Your task to perform on an android device: Search for "amazon basics triple a" on walmart, select the first entry, and add it to the cart. Image 0: 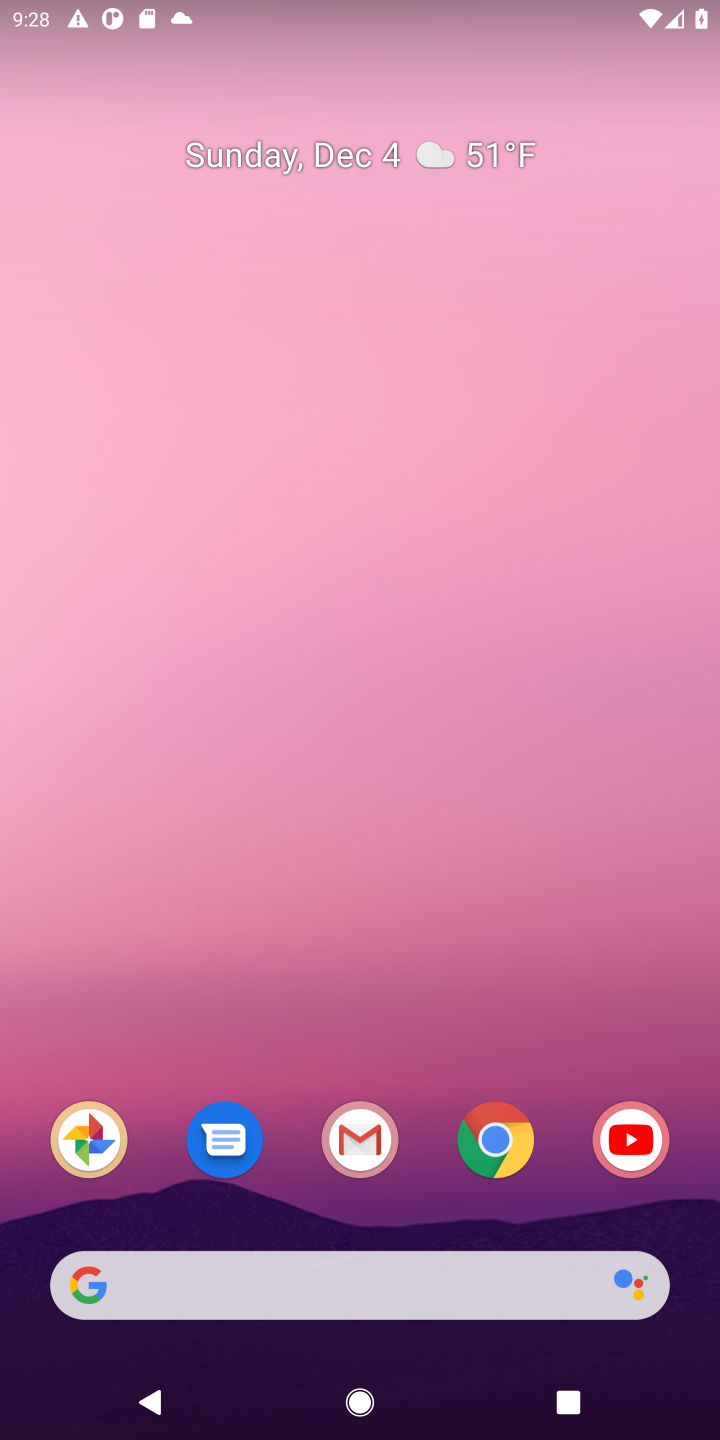
Step 0: click (501, 1132)
Your task to perform on an android device: Search for "amazon basics triple a" on walmart, select the first entry, and add it to the cart. Image 1: 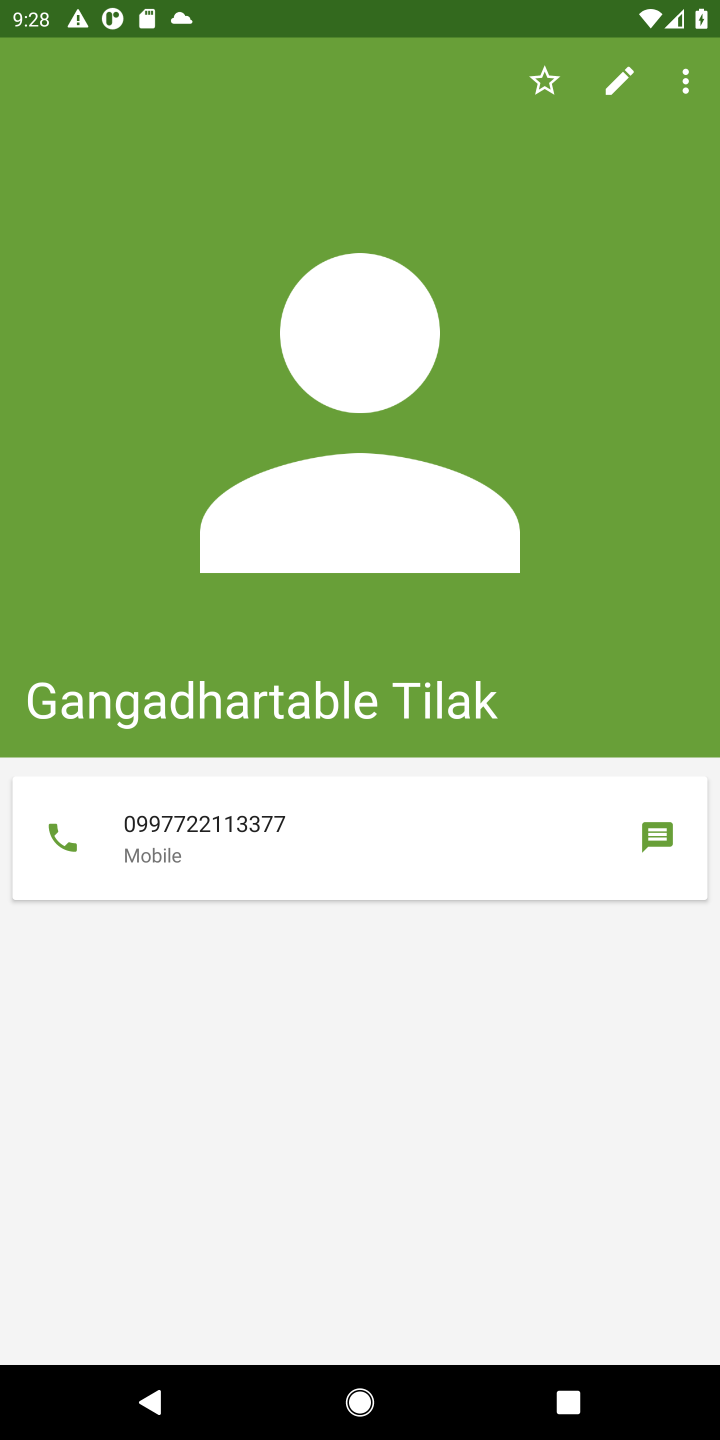
Step 1: press home button
Your task to perform on an android device: Search for "amazon basics triple a" on walmart, select the first entry, and add it to the cart. Image 2: 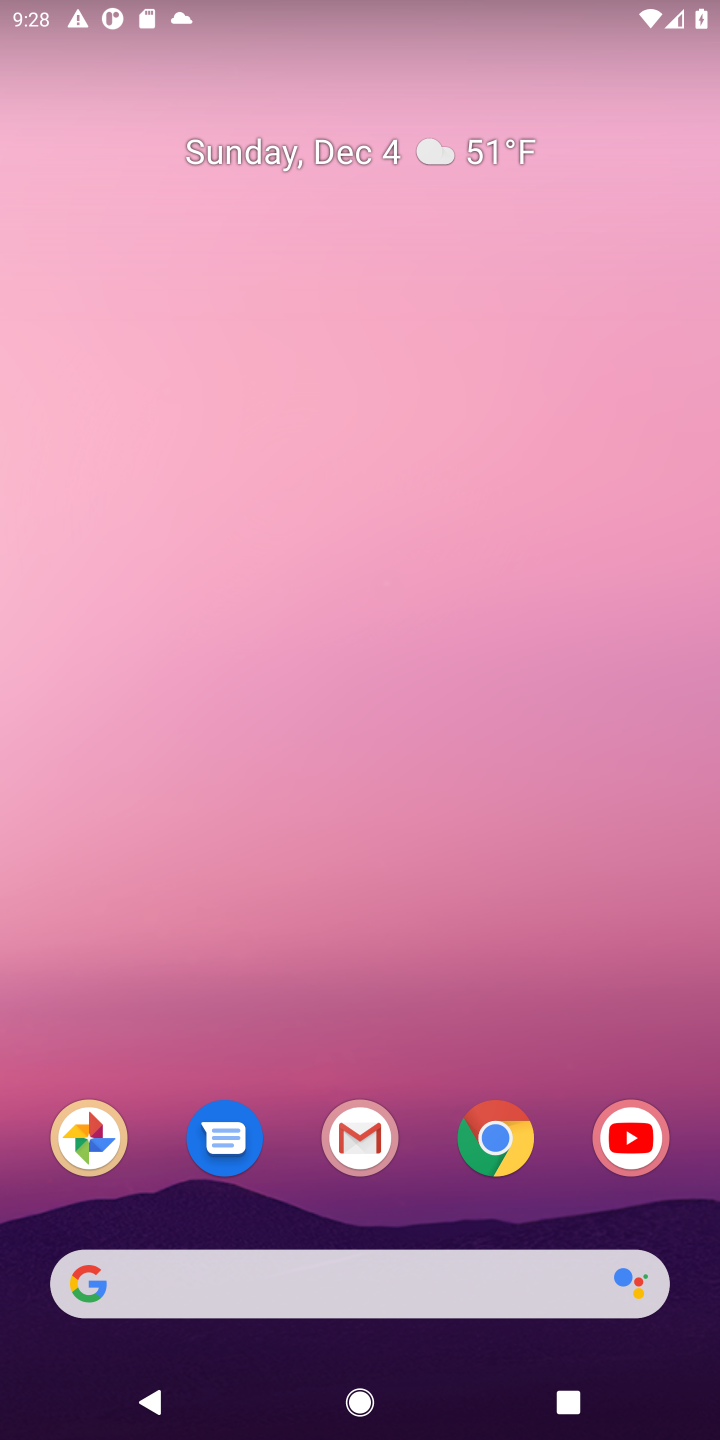
Step 2: click (503, 1140)
Your task to perform on an android device: Search for "amazon basics triple a" on walmart, select the first entry, and add it to the cart. Image 3: 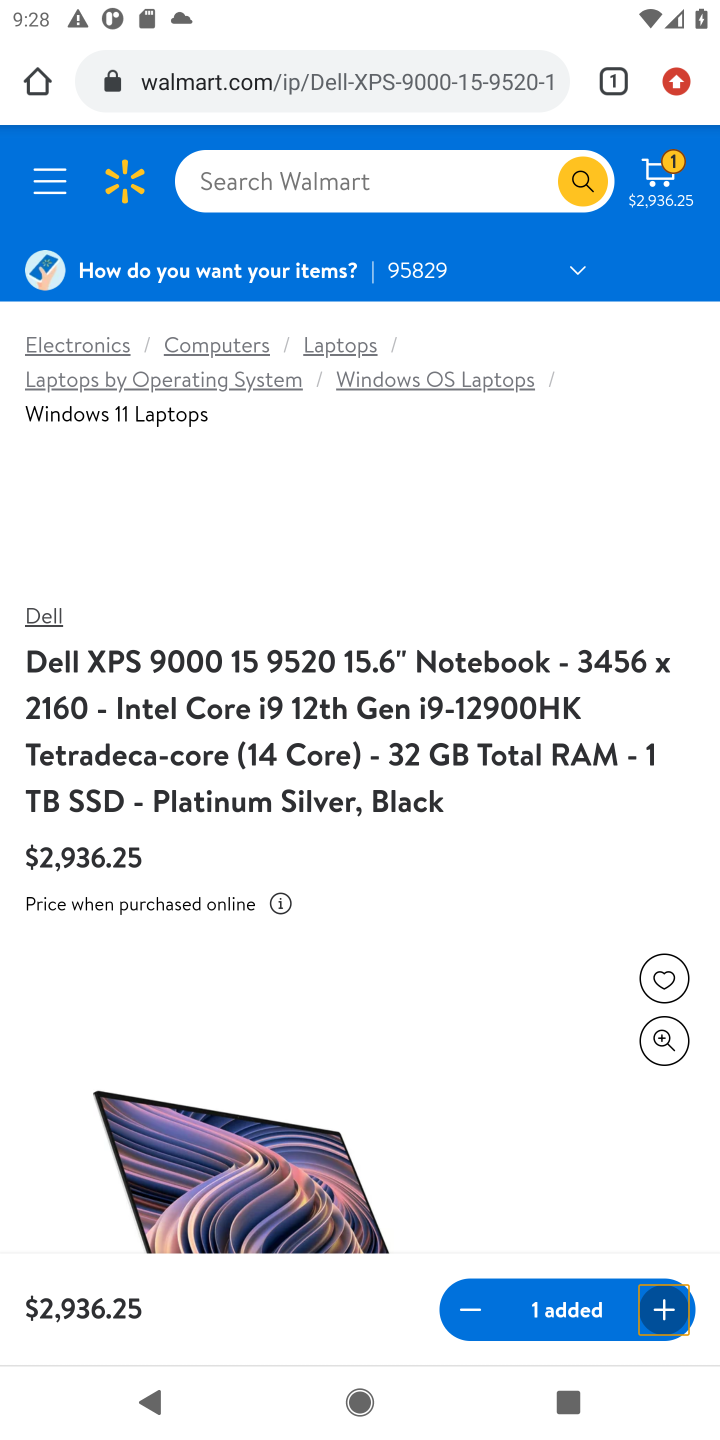
Step 3: click (341, 186)
Your task to perform on an android device: Search for "amazon basics triple a" on walmart, select the first entry, and add it to the cart. Image 4: 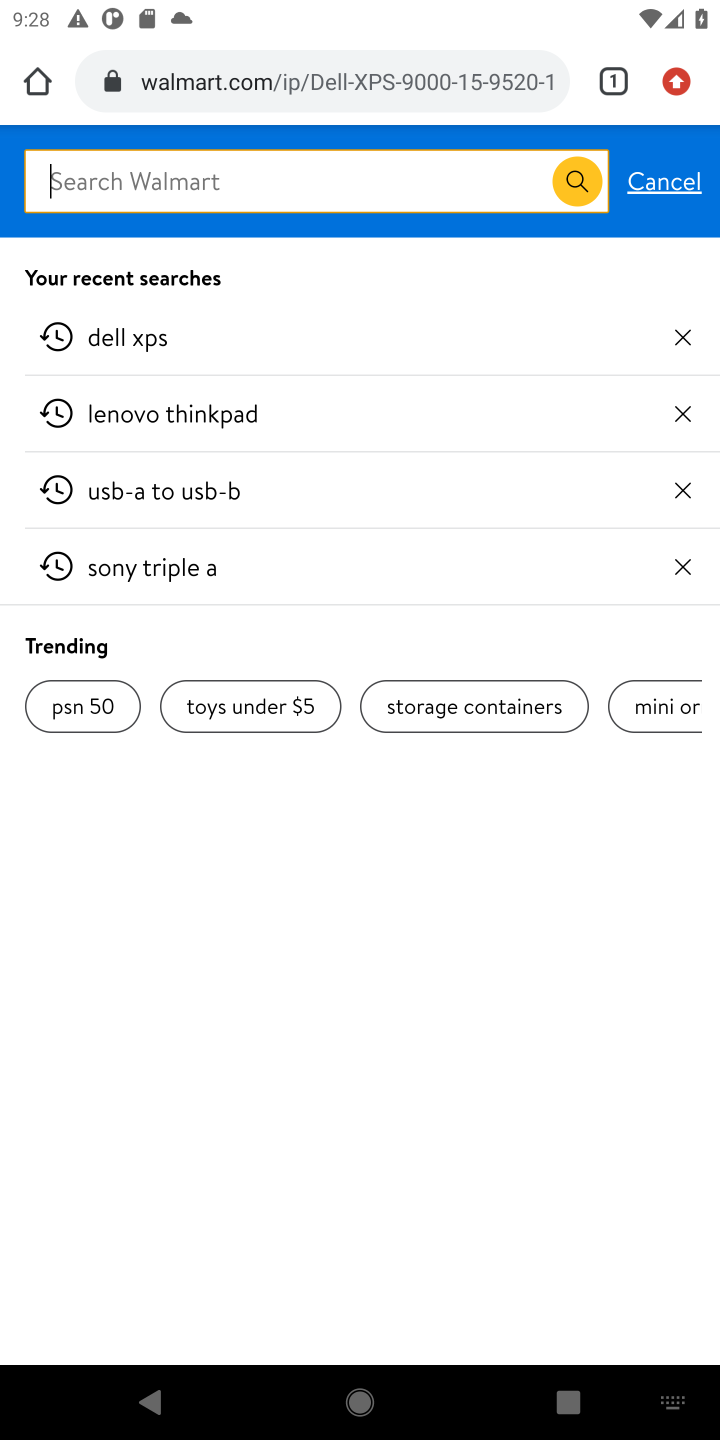
Step 4: type "amazon basics triple a"
Your task to perform on an android device: Search for "amazon basics triple a" on walmart, select the first entry, and add it to the cart. Image 5: 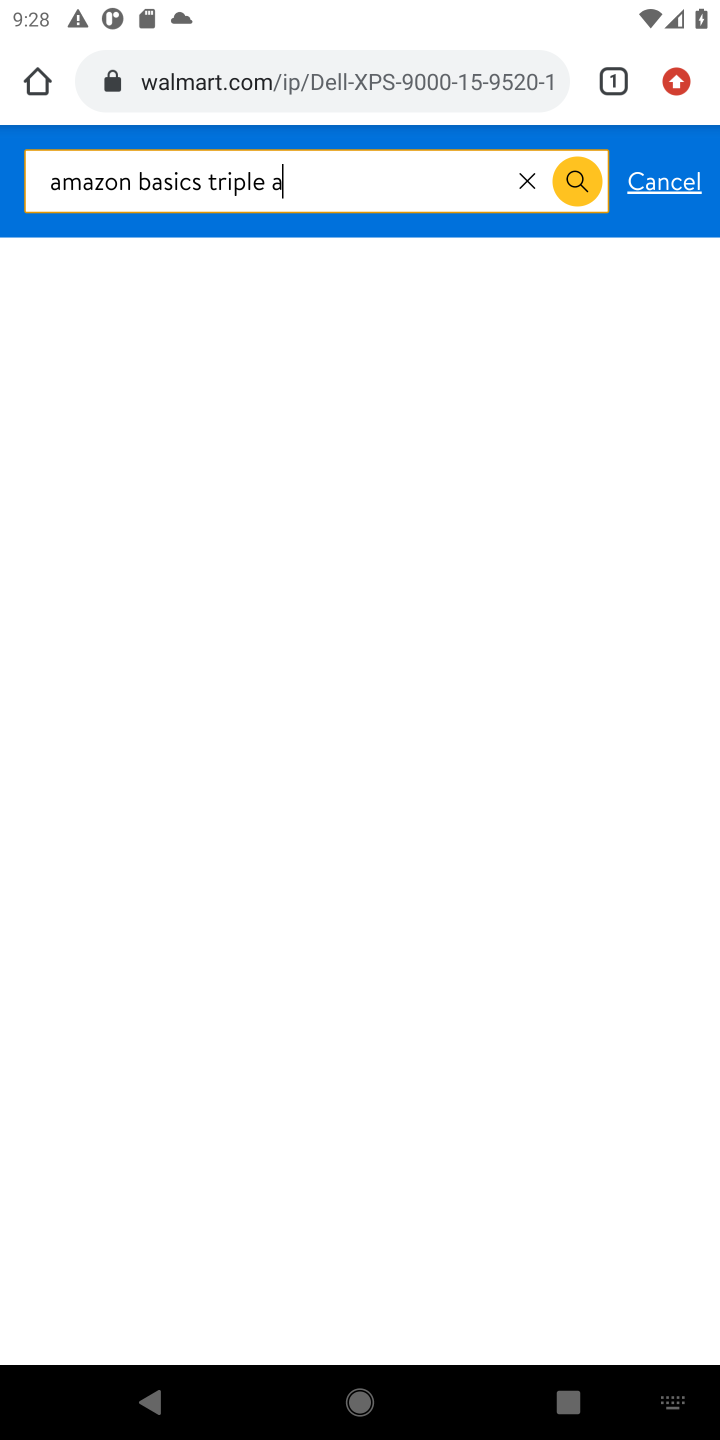
Step 5: press enter
Your task to perform on an android device: Search for "amazon basics triple a" on walmart, select the first entry, and add it to the cart. Image 6: 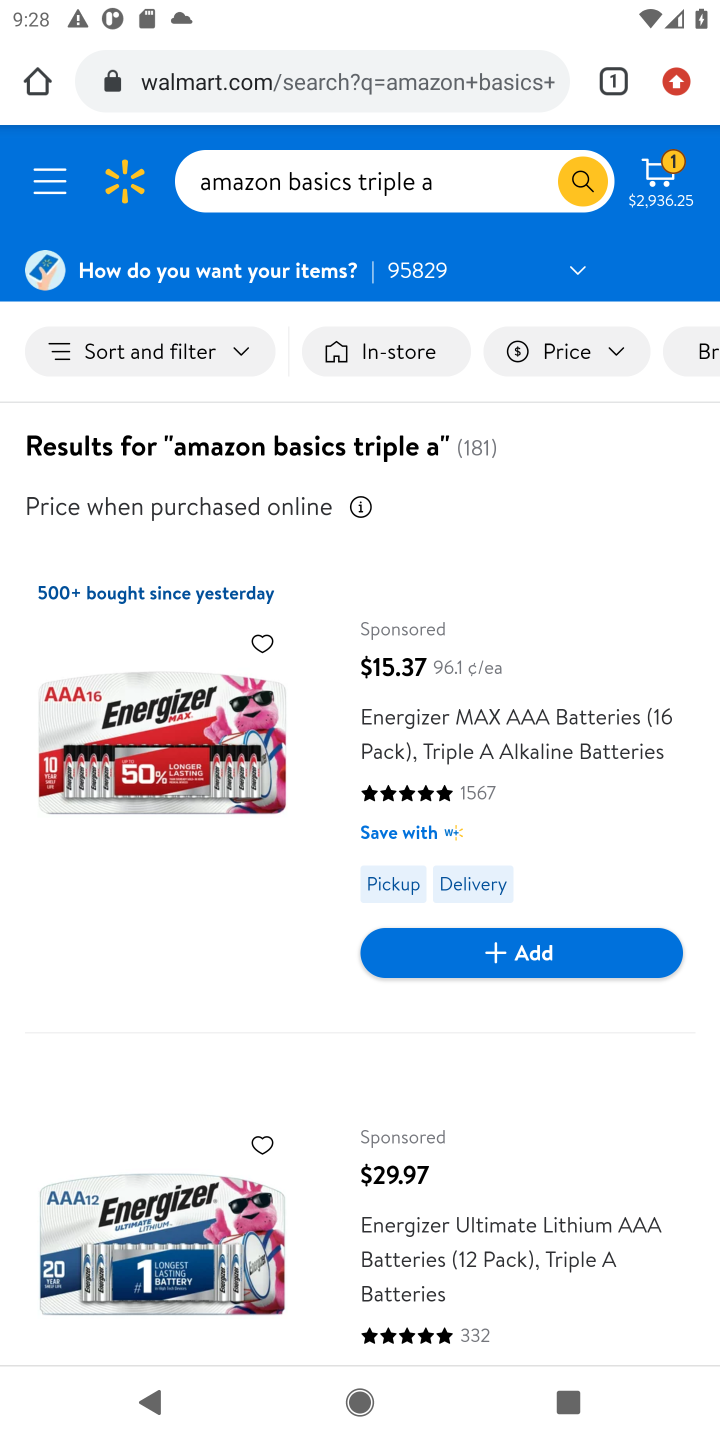
Step 6: task complete